Your task to perform on an android device: Open Chrome and go to settings Image 0: 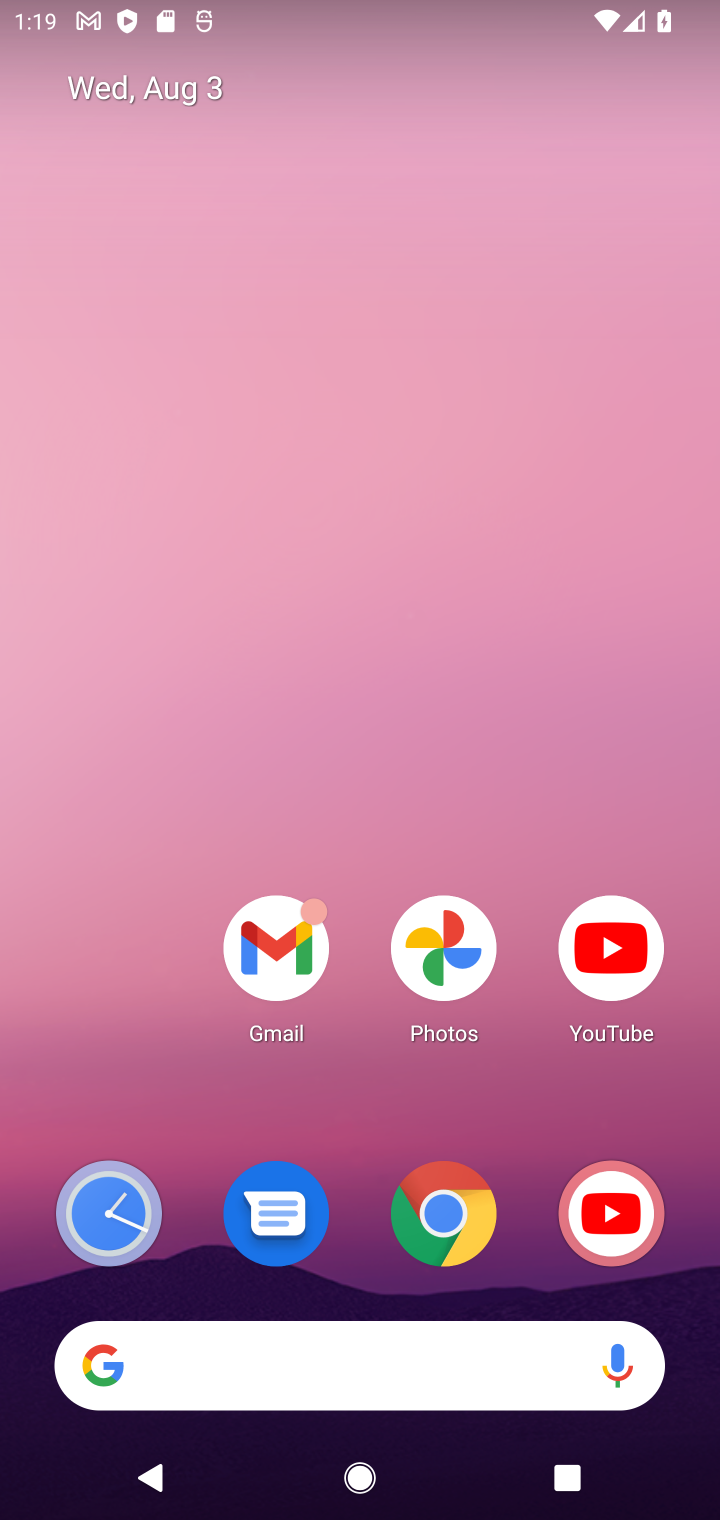
Step 0: drag from (349, 986) to (315, 77)
Your task to perform on an android device: Open Chrome and go to settings Image 1: 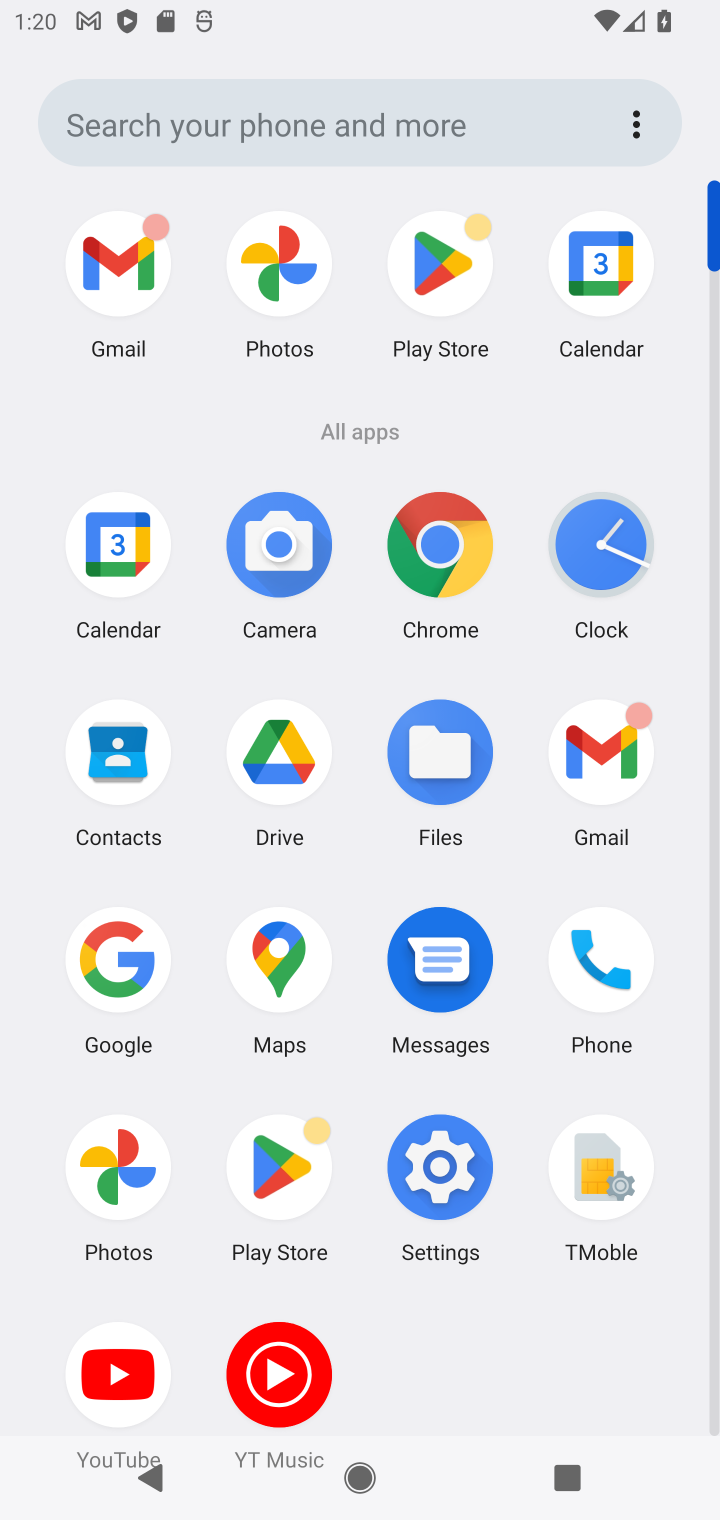
Step 1: click (436, 543)
Your task to perform on an android device: Open Chrome and go to settings Image 2: 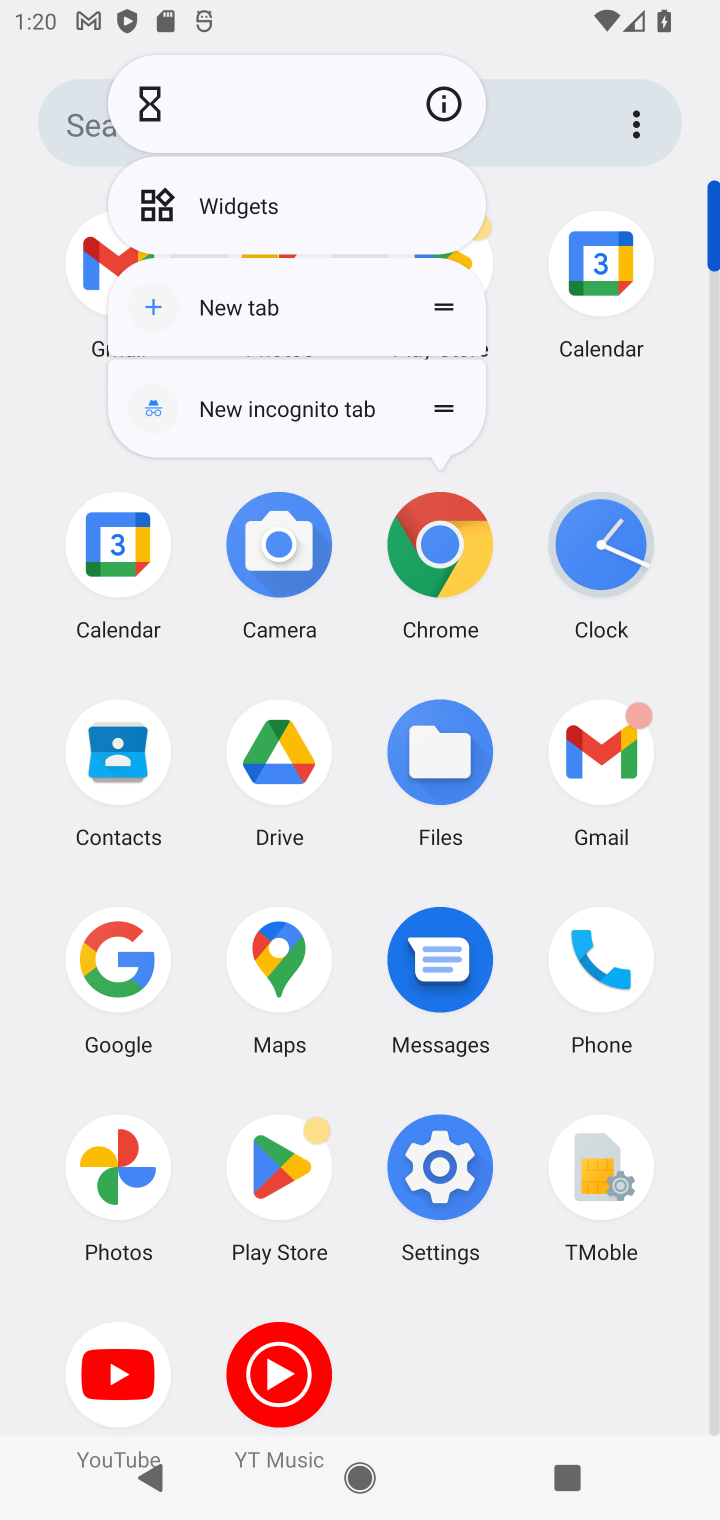
Step 2: click (433, 561)
Your task to perform on an android device: Open Chrome and go to settings Image 3: 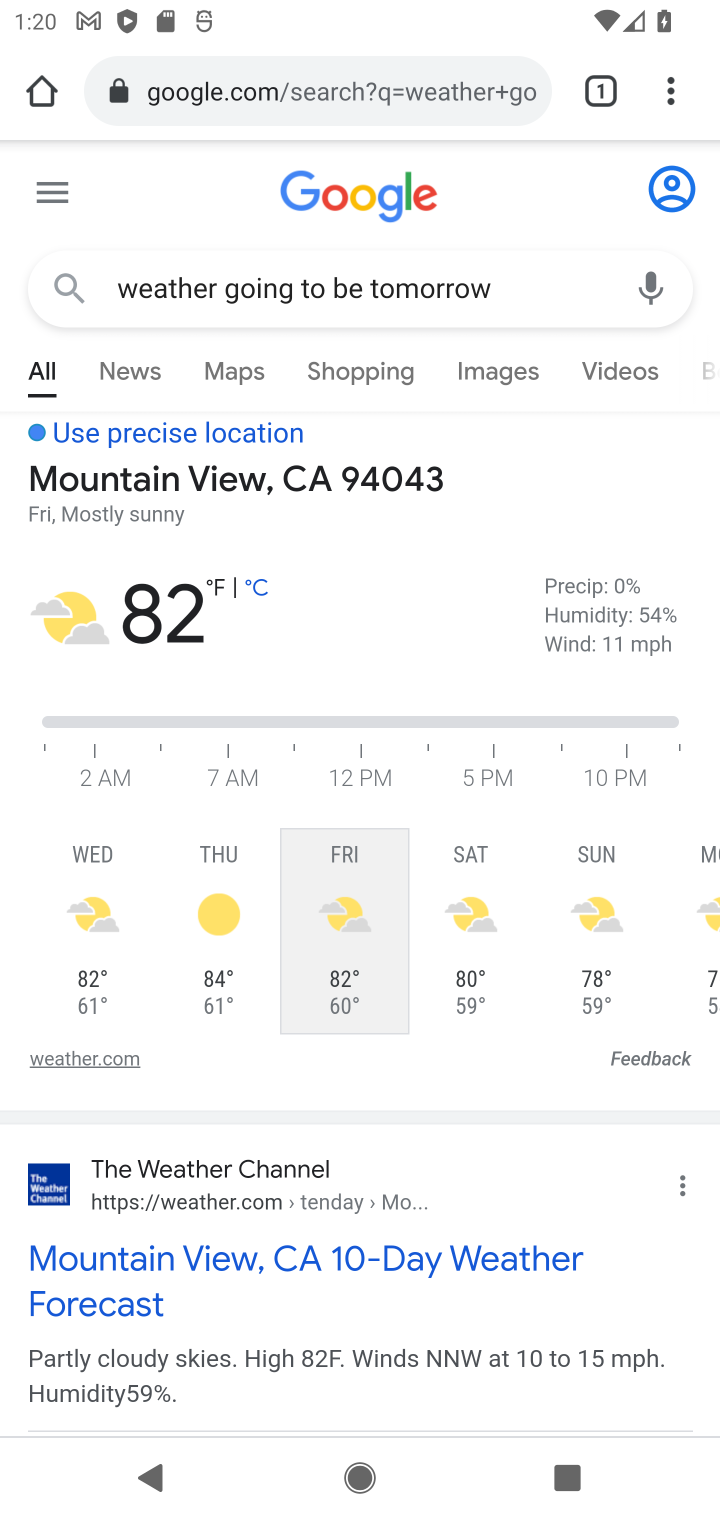
Step 3: drag from (665, 81) to (417, 1158)
Your task to perform on an android device: Open Chrome and go to settings Image 4: 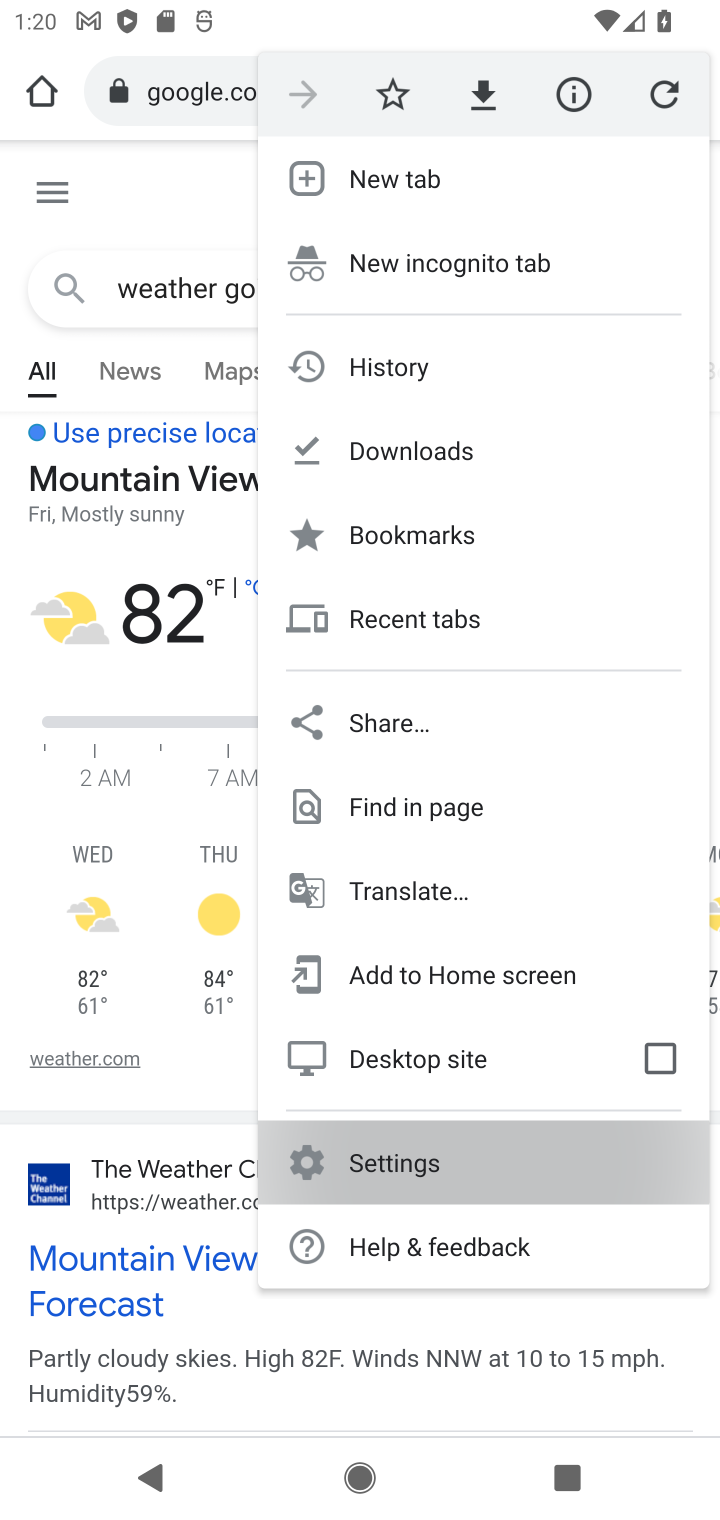
Step 4: click (417, 1158)
Your task to perform on an android device: Open Chrome and go to settings Image 5: 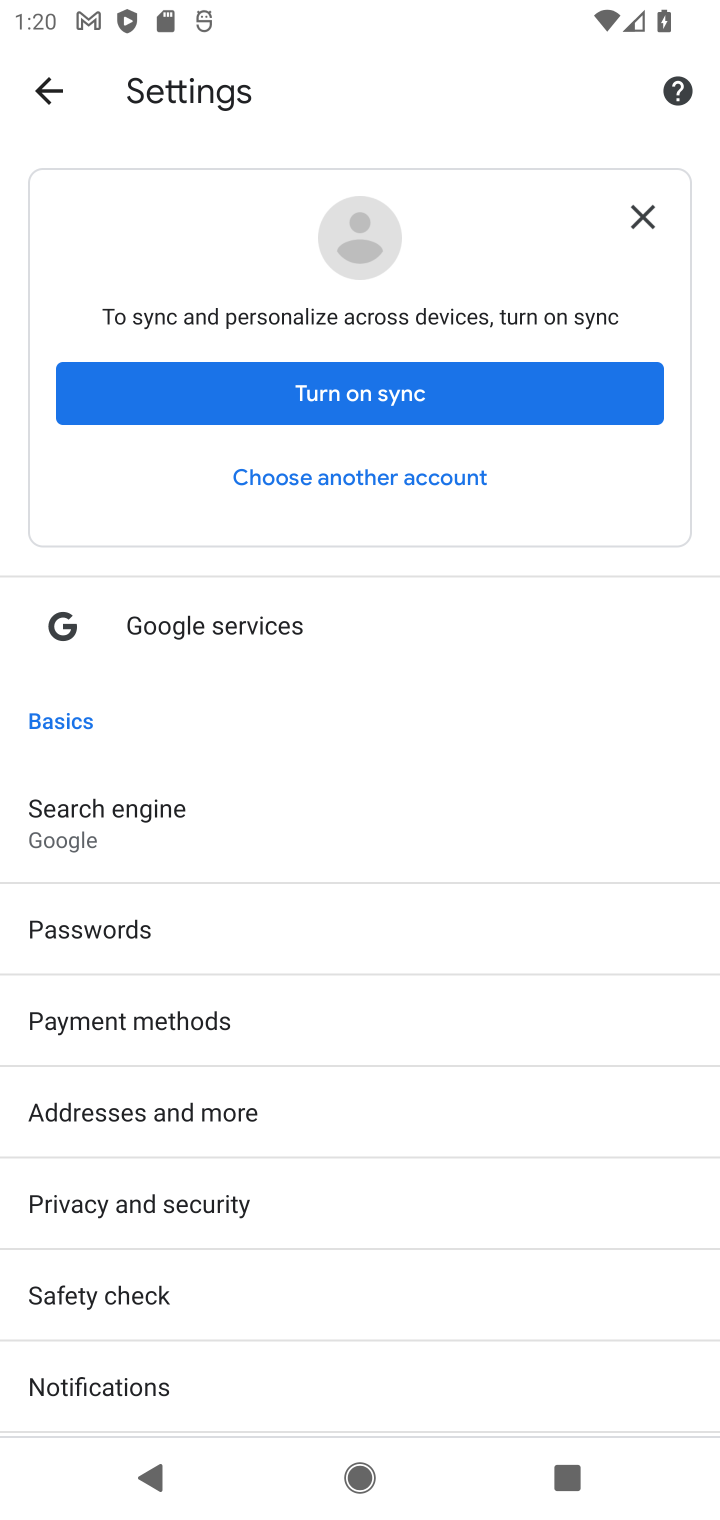
Step 5: task complete